Your task to perform on an android device: turn off airplane mode Image 0: 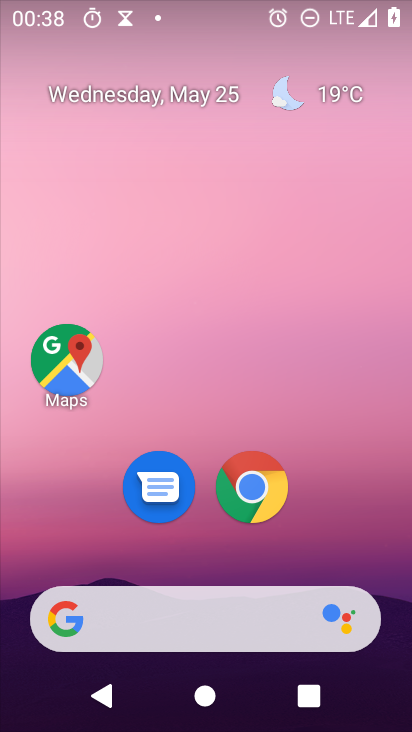
Step 0: drag from (358, 581) to (406, 5)
Your task to perform on an android device: turn off airplane mode Image 1: 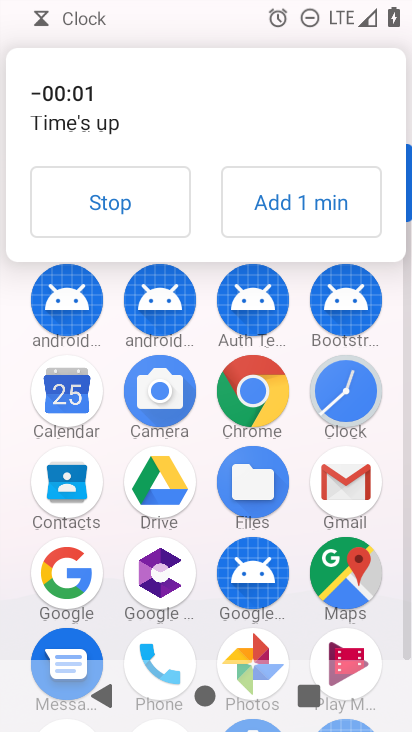
Step 1: click (138, 207)
Your task to perform on an android device: turn off airplane mode Image 2: 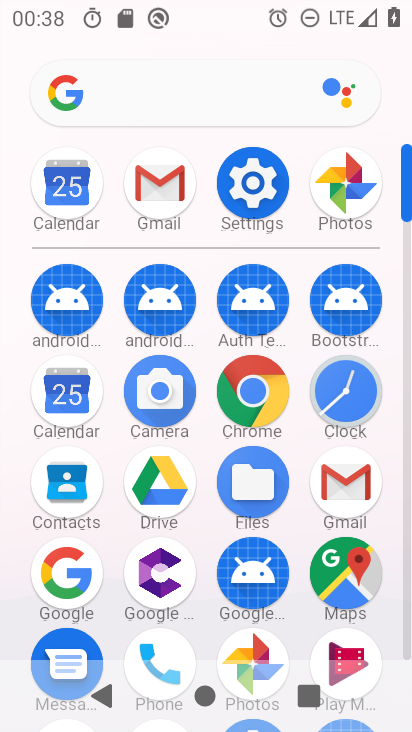
Step 2: click (269, 191)
Your task to perform on an android device: turn off airplane mode Image 3: 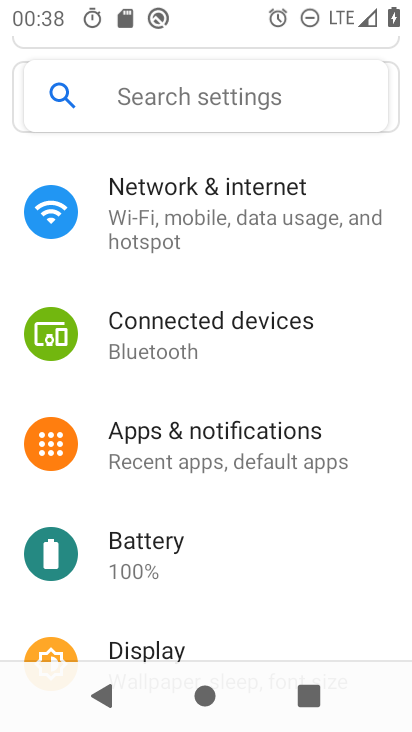
Step 3: click (250, 223)
Your task to perform on an android device: turn off airplane mode Image 4: 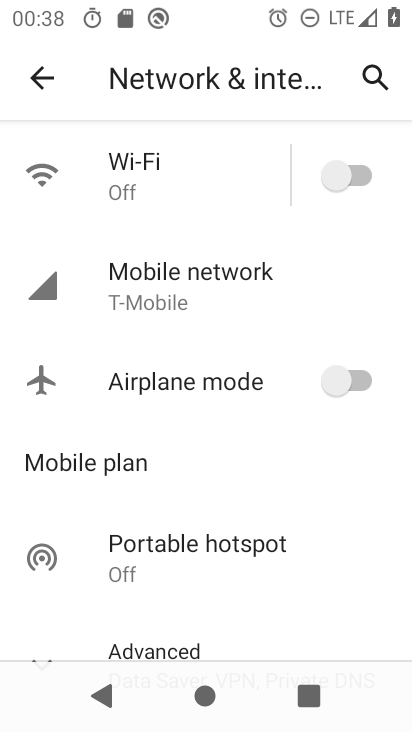
Step 4: task complete